Your task to perform on an android device: Go to battery settings Image 0: 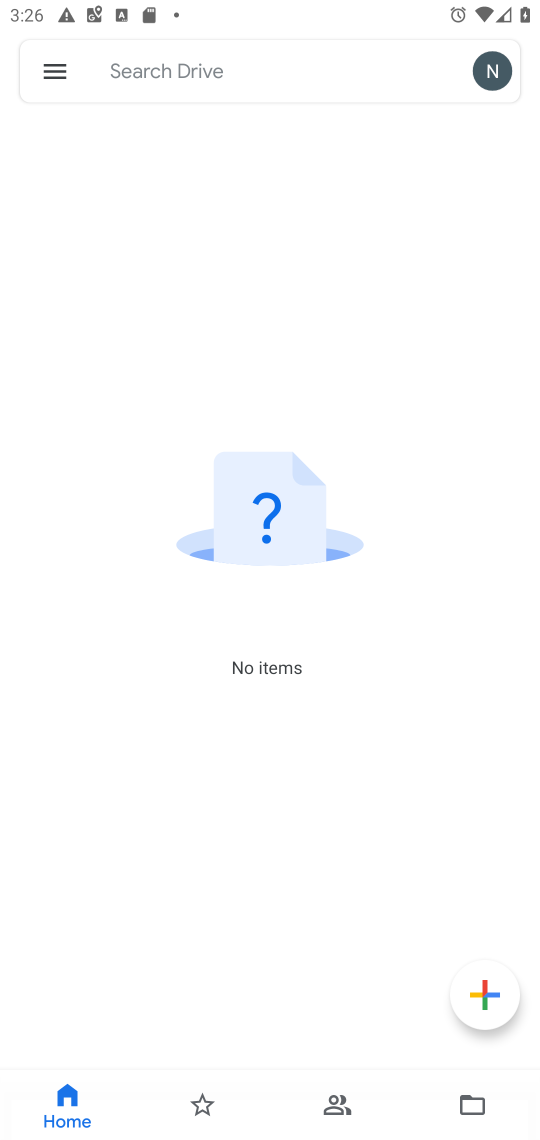
Step 0: press home button
Your task to perform on an android device: Go to battery settings Image 1: 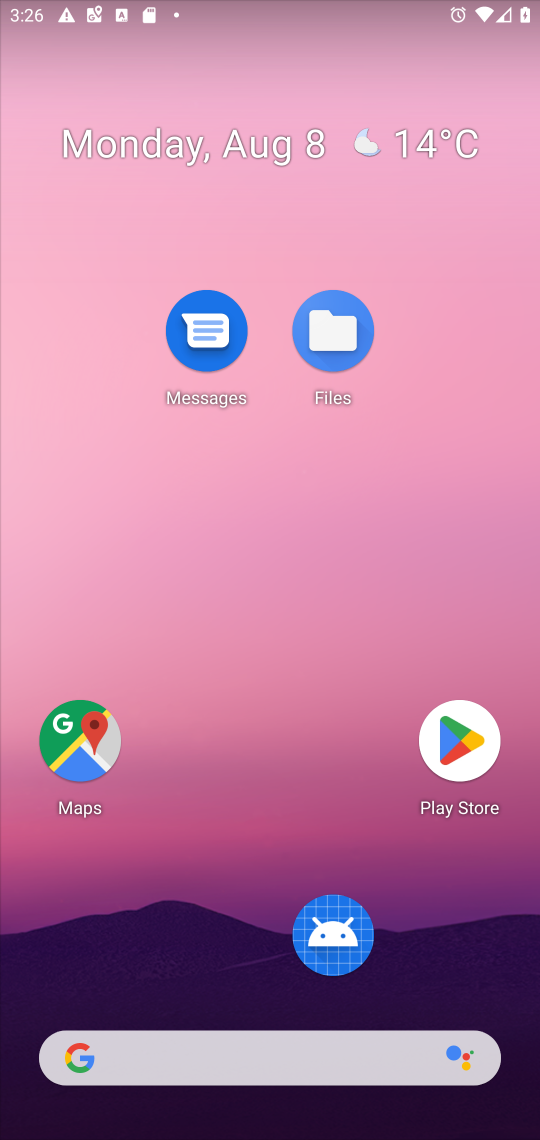
Step 1: drag from (311, 1056) to (248, 76)
Your task to perform on an android device: Go to battery settings Image 2: 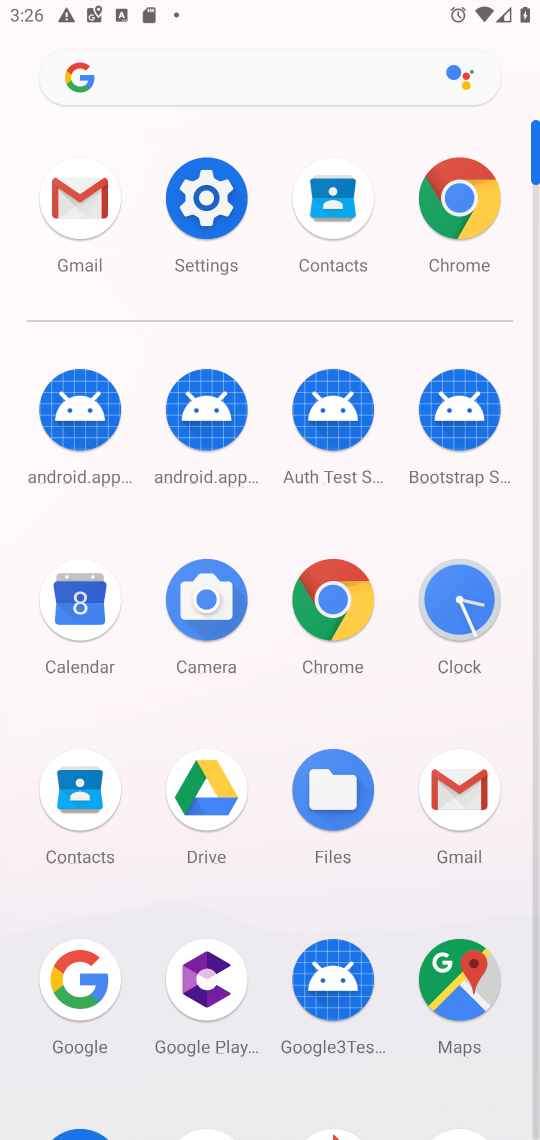
Step 2: click (209, 193)
Your task to perform on an android device: Go to battery settings Image 3: 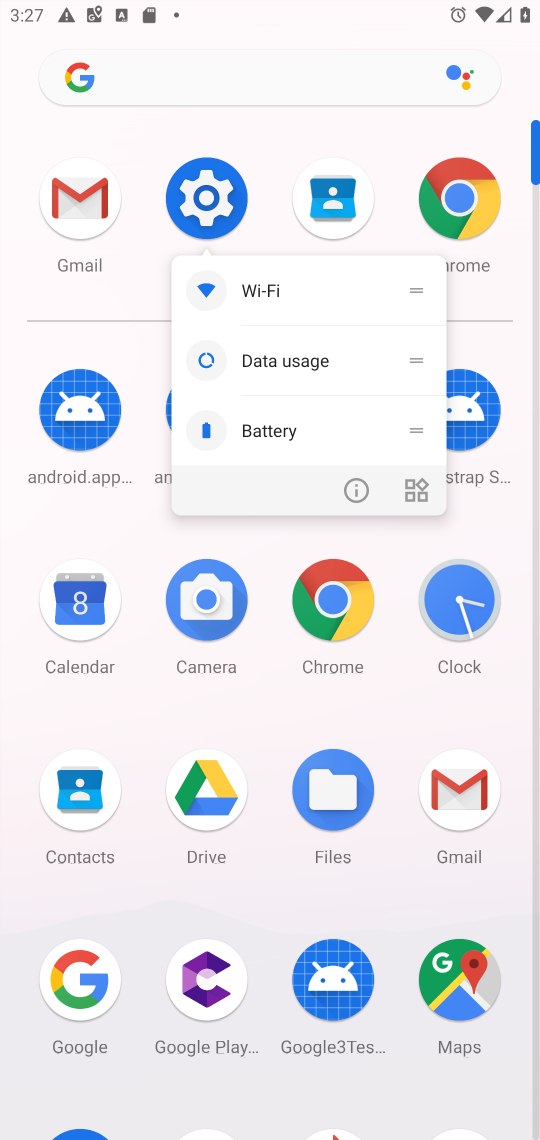
Step 3: click (288, 425)
Your task to perform on an android device: Go to battery settings Image 4: 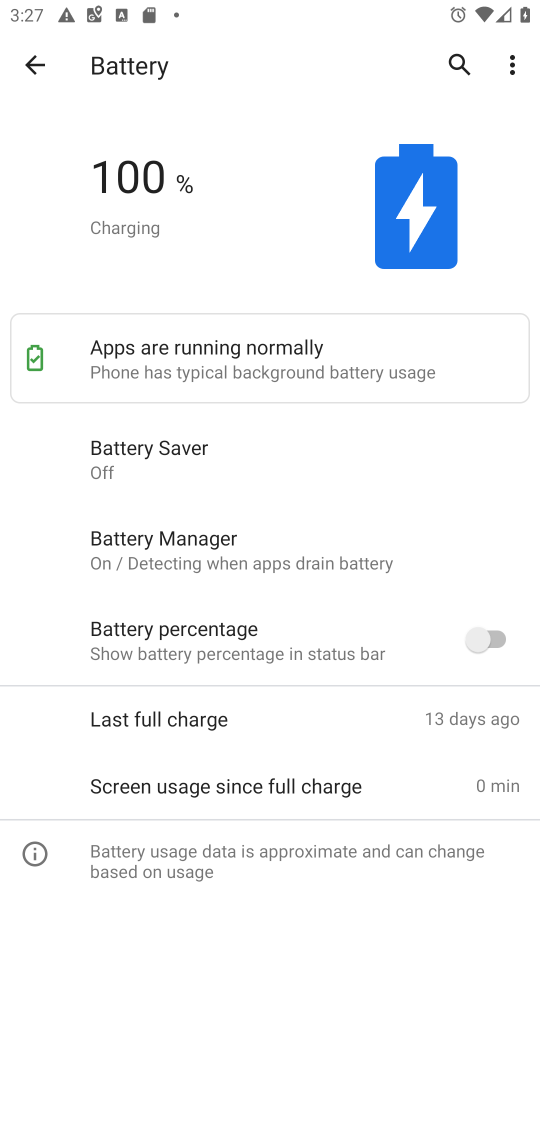
Step 4: task complete